Your task to perform on an android device: Open battery settings Image 0: 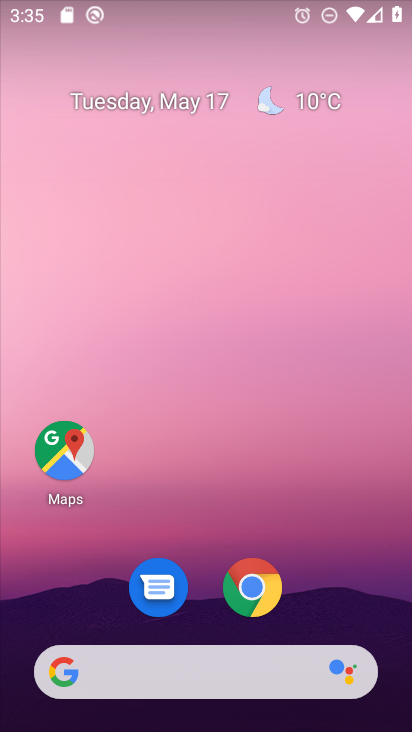
Step 0: drag from (347, 597) to (240, 0)
Your task to perform on an android device: Open battery settings Image 1: 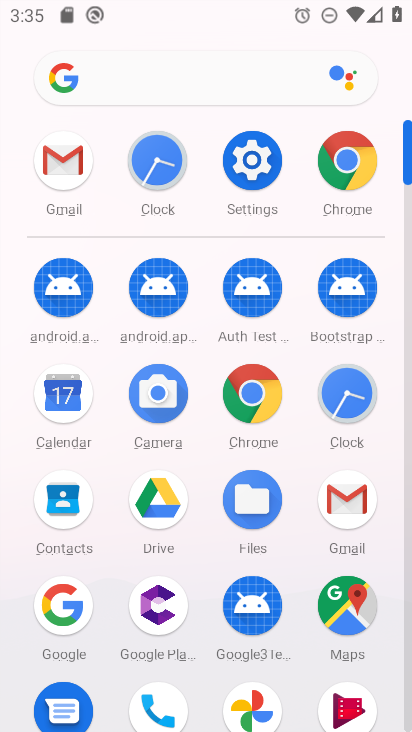
Step 1: click (246, 152)
Your task to perform on an android device: Open battery settings Image 2: 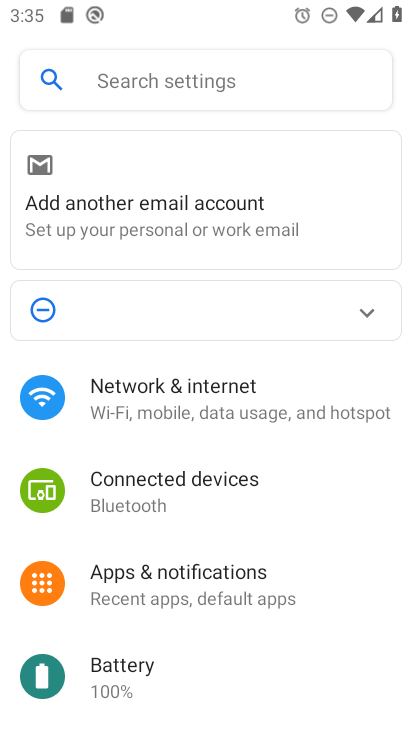
Step 2: drag from (305, 589) to (289, 198)
Your task to perform on an android device: Open battery settings Image 3: 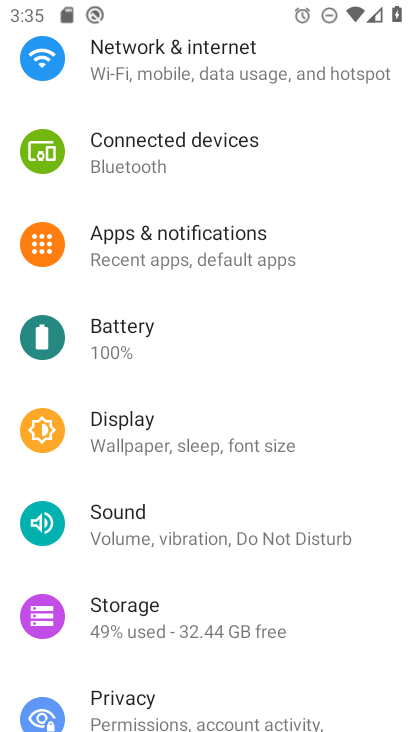
Step 3: click (152, 333)
Your task to perform on an android device: Open battery settings Image 4: 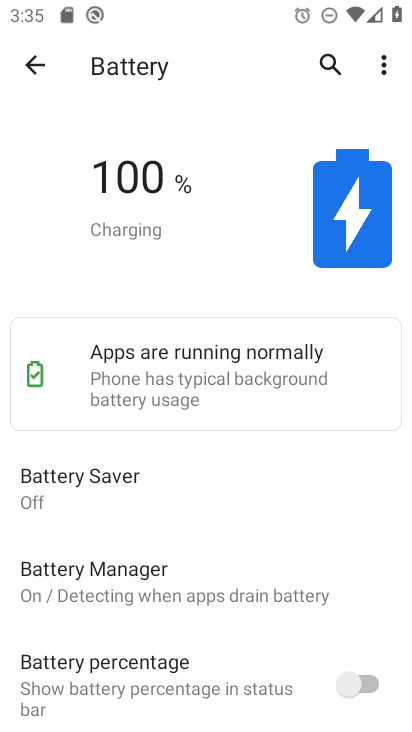
Step 4: task complete